Your task to perform on an android device: Clear all items from cart on amazon.com. Add "rayovac triple a" to the cart on amazon.com Image 0: 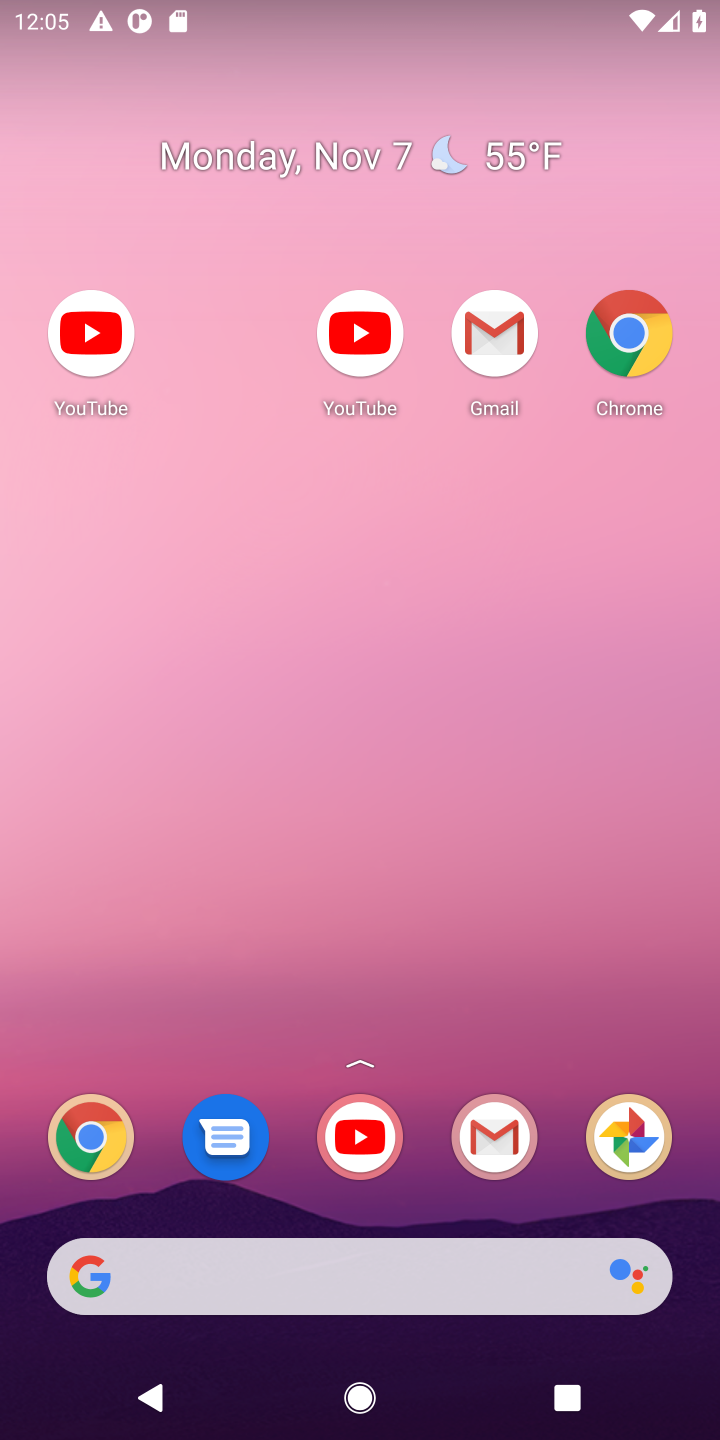
Step 0: drag from (477, 800) to (494, 206)
Your task to perform on an android device: Clear all items from cart on amazon.com. Add "rayovac triple a" to the cart on amazon.com Image 1: 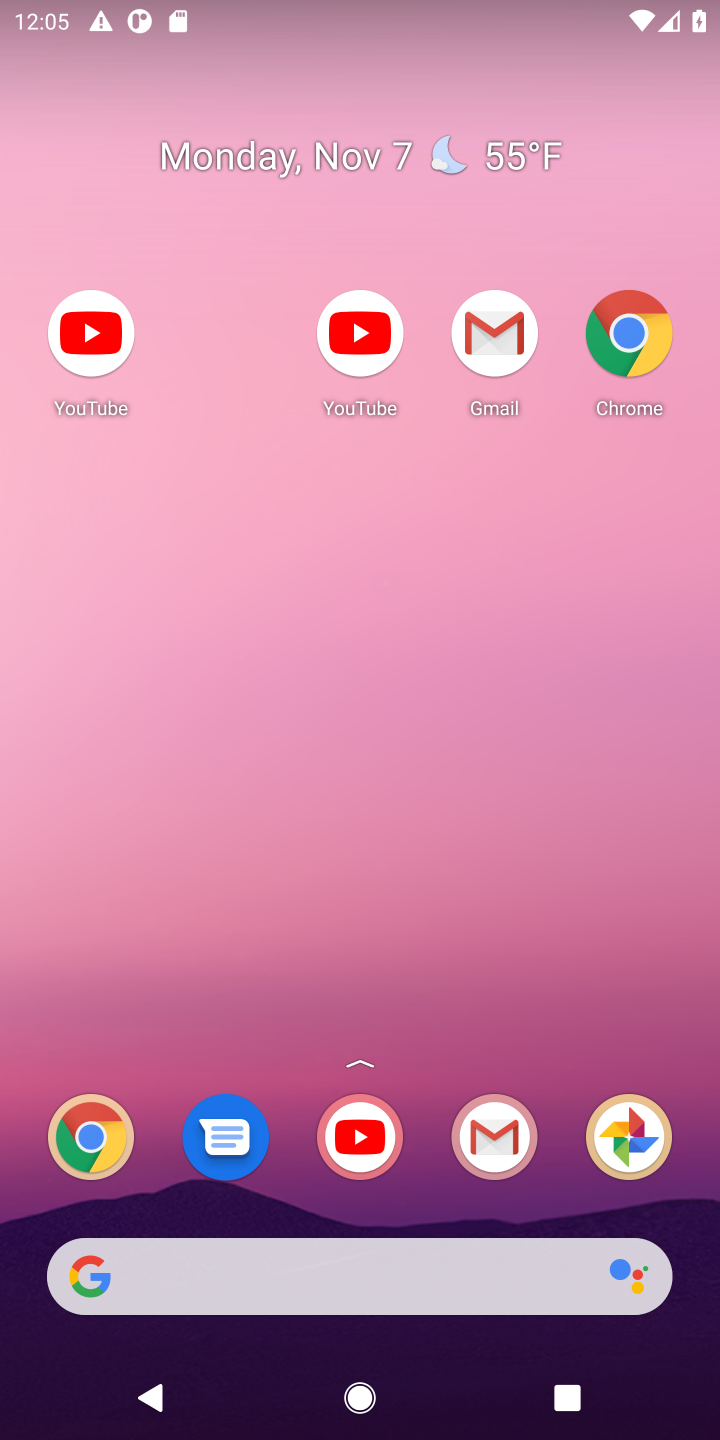
Step 1: drag from (305, 1122) to (219, 174)
Your task to perform on an android device: Clear all items from cart on amazon.com. Add "rayovac triple a" to the cart on amazon.com Image 2: 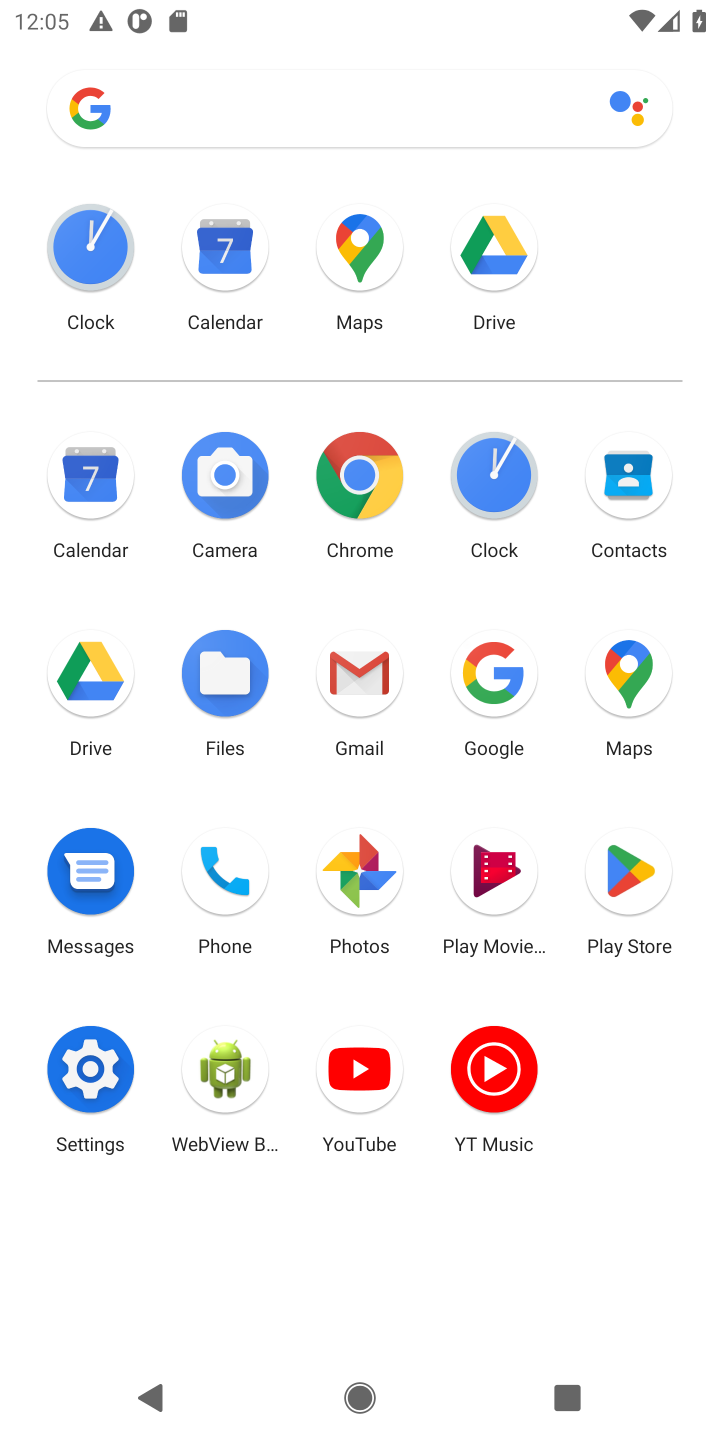
Step 2: click (351, 480)
Your task to perform on an android device: Clear all items from cart on amazon.com. Add "rayovac triple a" to the cart on amazon.com Image 3: 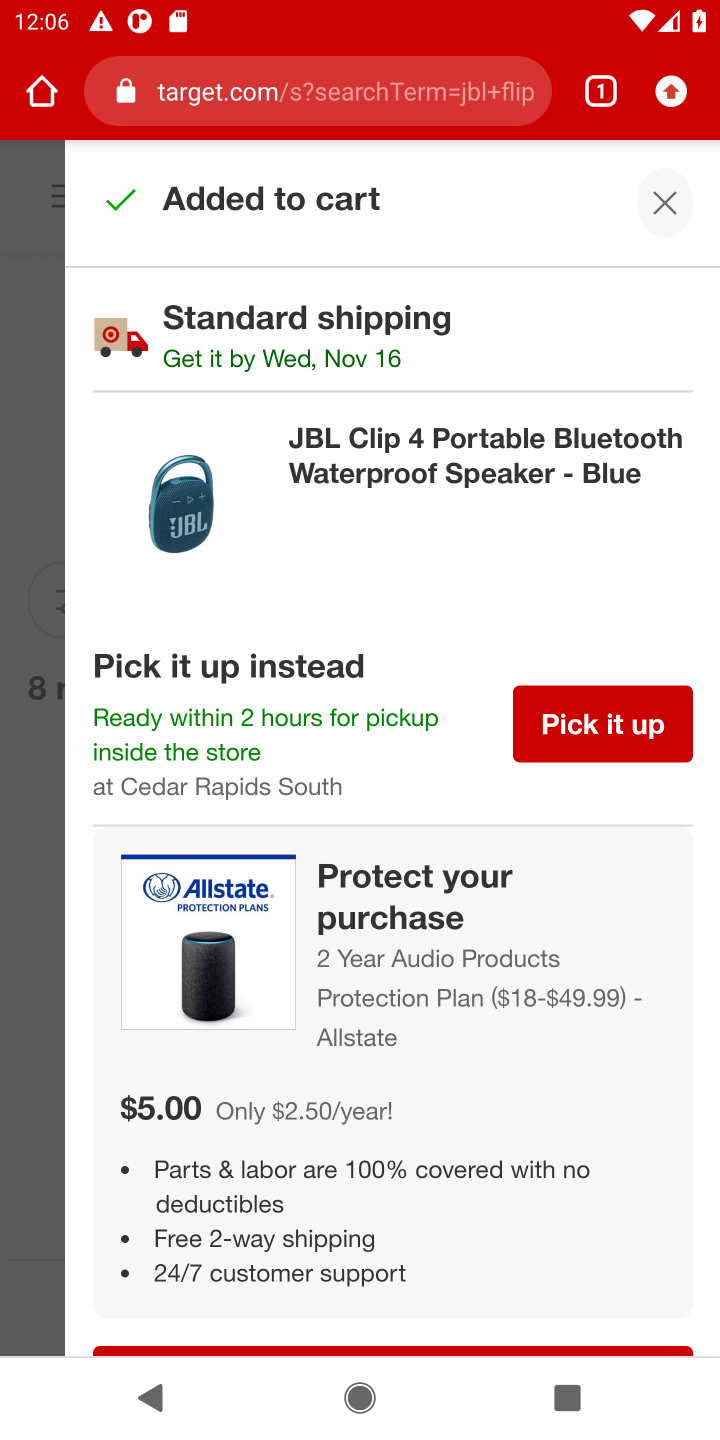
Step 3: drag from (459, 1069) to (426, 388)
Your task to perform on an android device: Clear all items from cart on amazon.com. Add "rayovac triple a" to the cart on amazon.com Image 4: 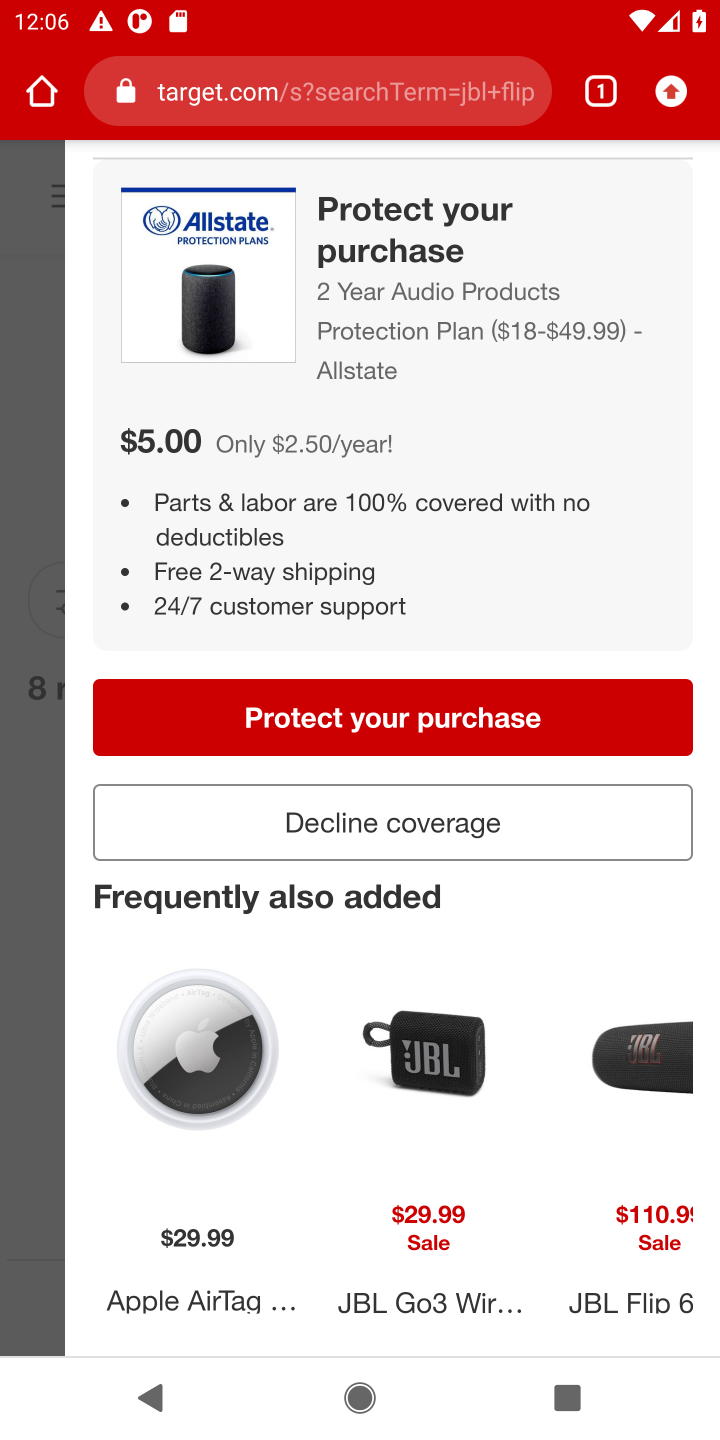
Step 4: drag from (558, 328) to (491, 1164)
Your task to perform on an android device: Clear all items from cart on amazon.com. Add "rayovac triple a" to the cart on amazon.com Image 5: 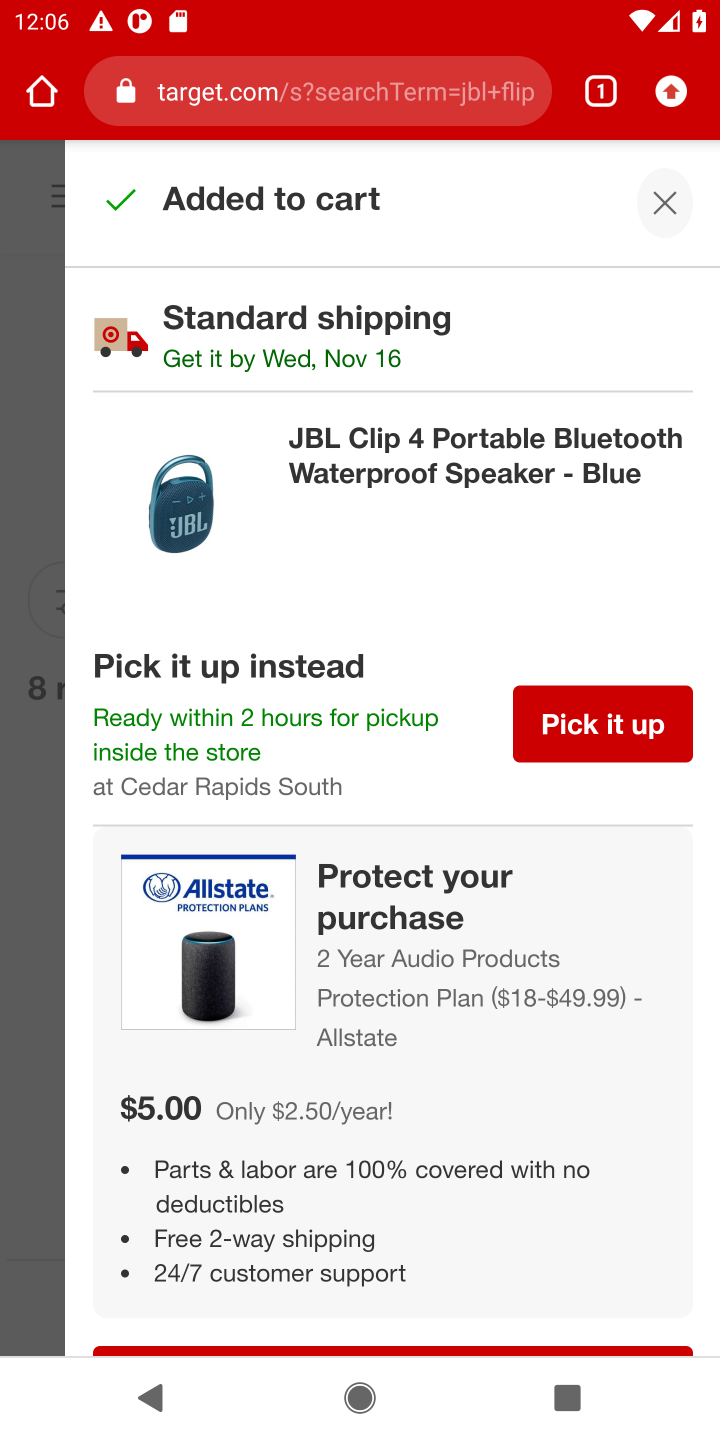
Step 5: click (360, 84)
Your task to perform on an android device: Clear all items from cart on amazon.com. Add "rayovac triple a" to the cart on amazon.com Image 6: 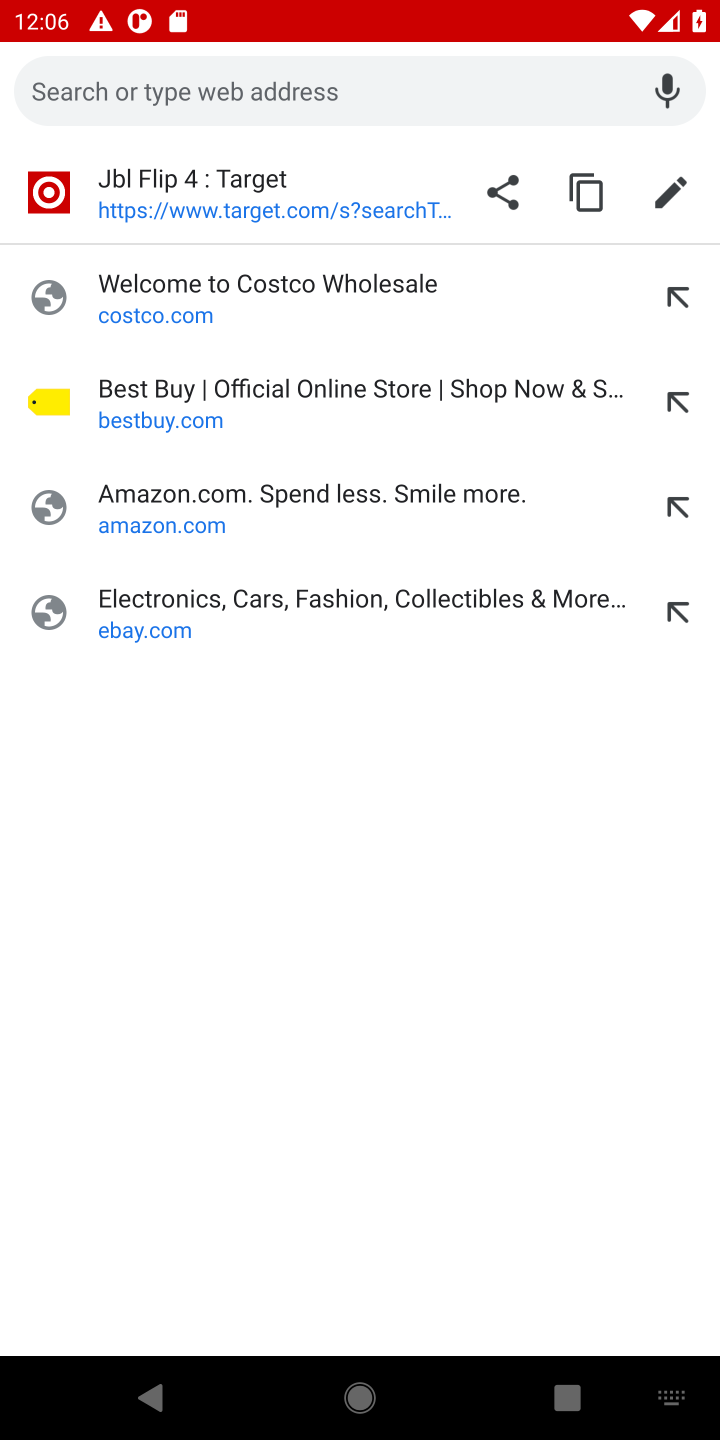
Step 6: type "amazon.com"
Your task to perform on an android device: Clear all items from cart on amazon.com. Add "rayovac triple a" to the cart on amazon.com Image 7: 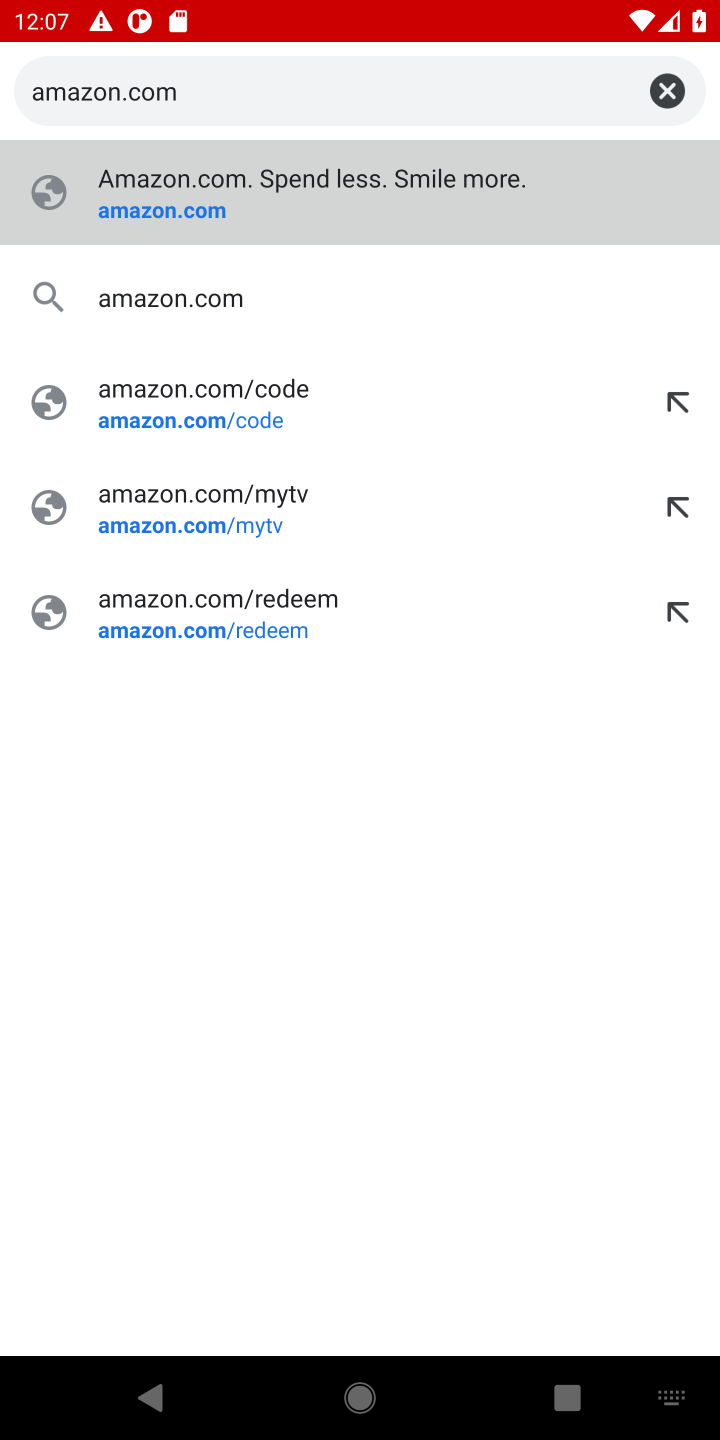
Step 7: press enter
Your task to perform on an android device: Clear all items from cart on amazon.com. Add "rayovac triple a" to the cart on amazon.com Image 8: 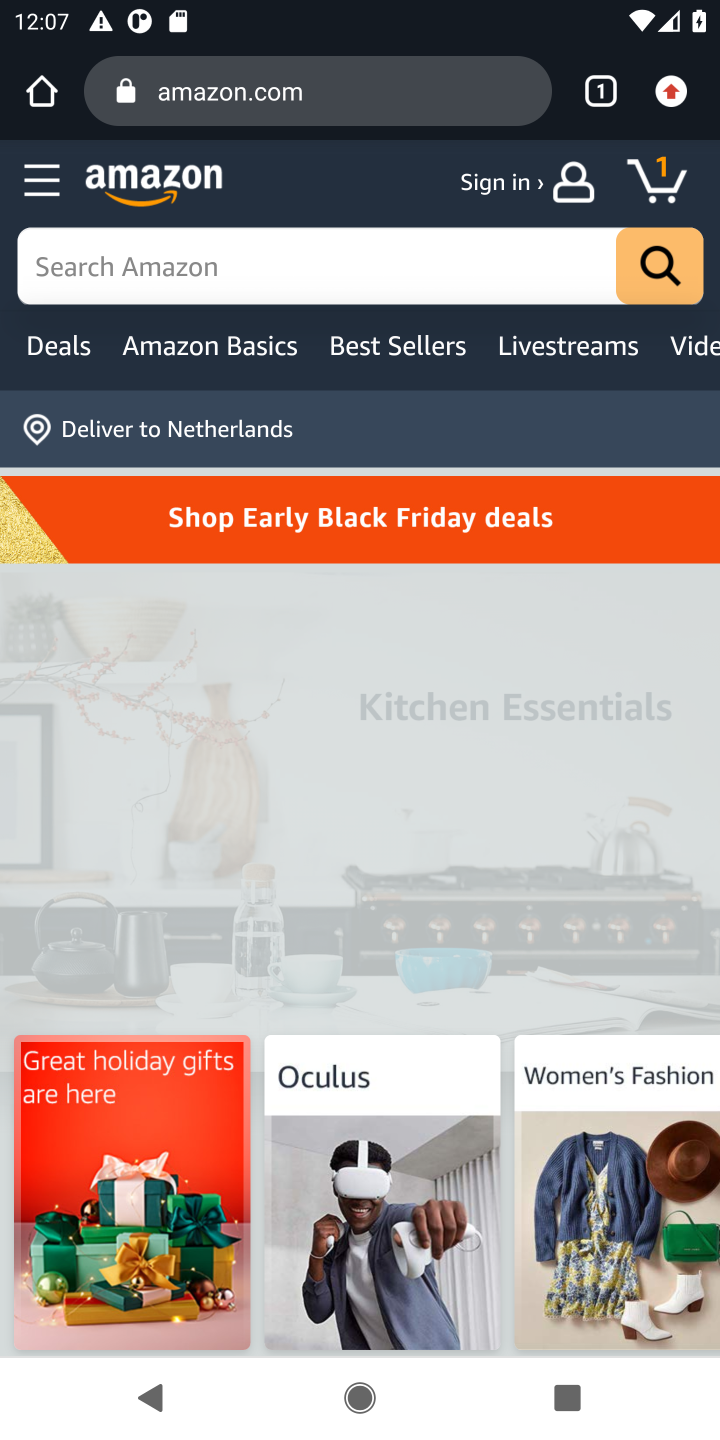
Step 8: click (660, 185)
Your task to perform on an android device: Clear all items from cart on amazon.com. Add "rayovac triple a" to the cart on amazon.com Image 9: 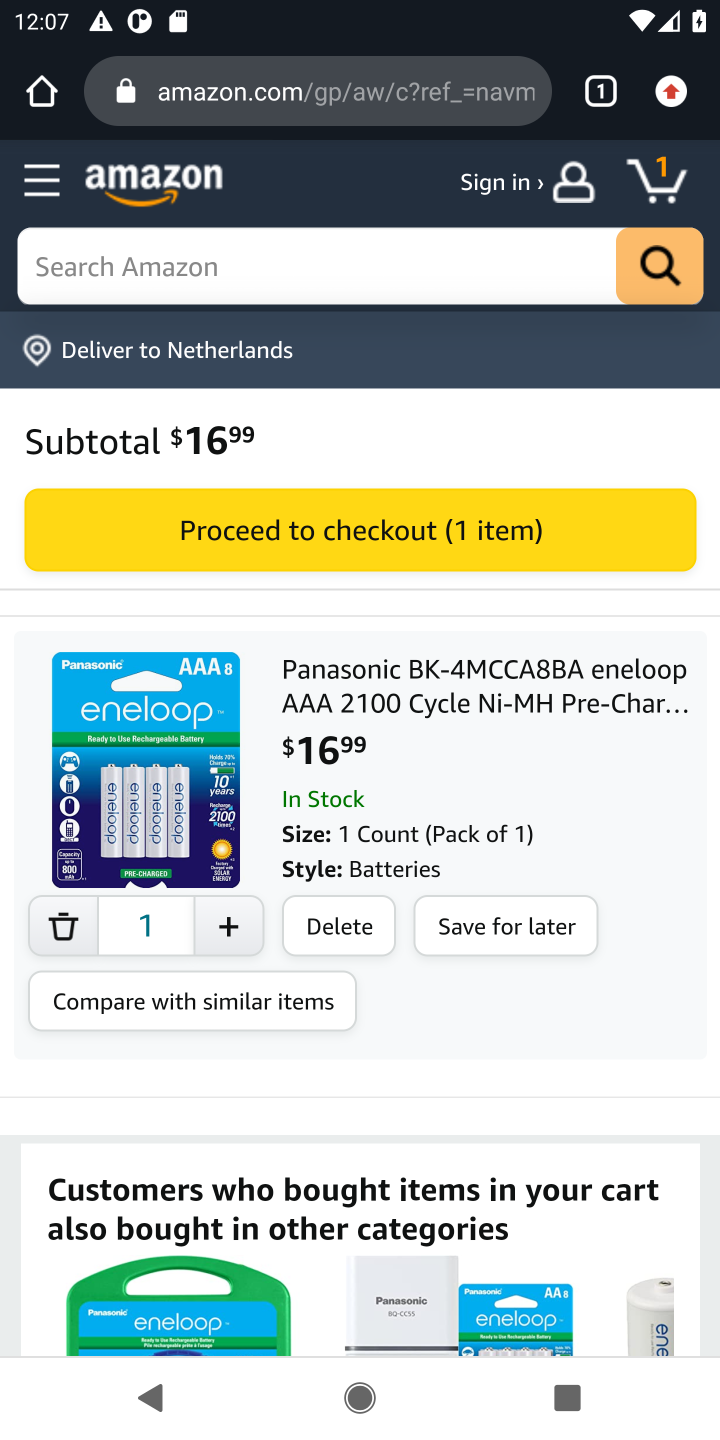
Step 9: click (307, 937)
Your task to perform on an android device: Clear all items from cart on amazon.com. Add "rayovac triple a" to the cart on amazon.com Image 10: 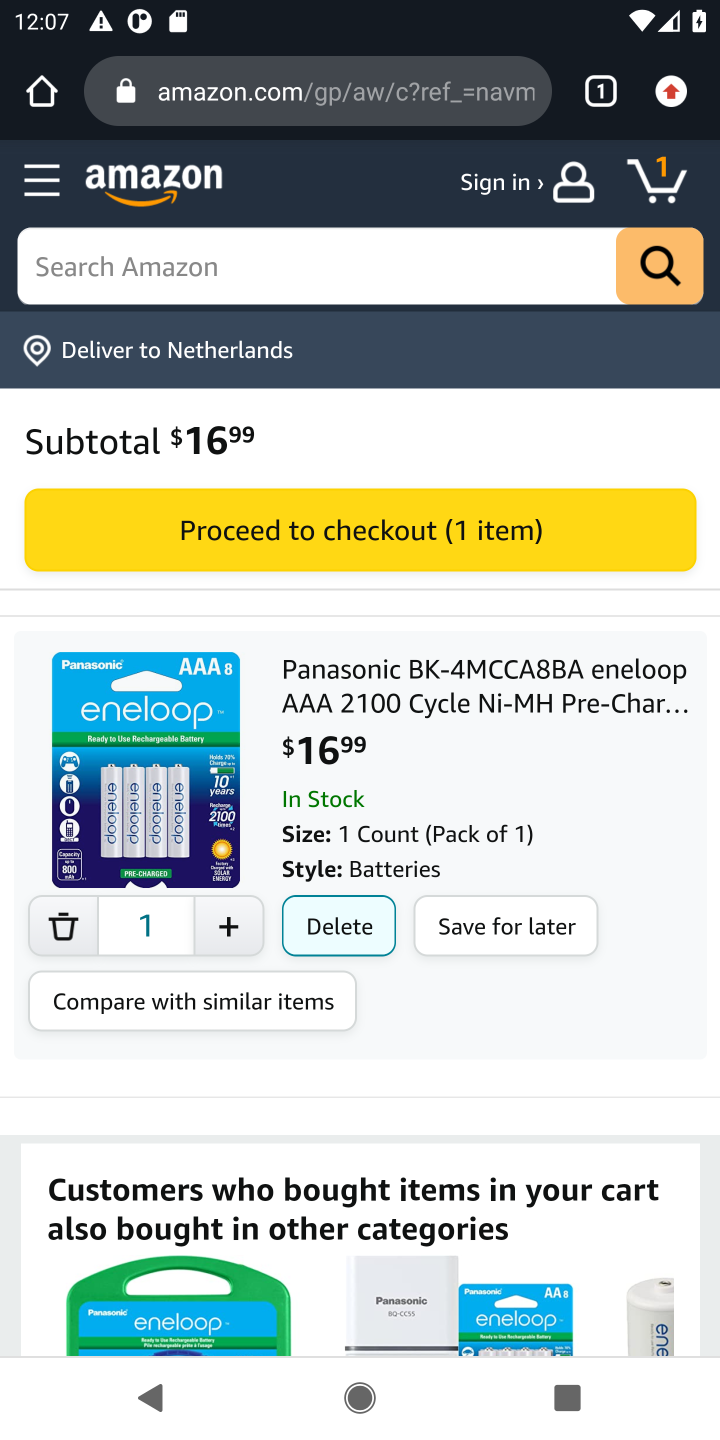
Step 10: click (317, 930)
Your task to perform on an android device: Clear all items from cart on amazon.com. Add "rayovac triple a" to the cart on amazon.com Image 11: 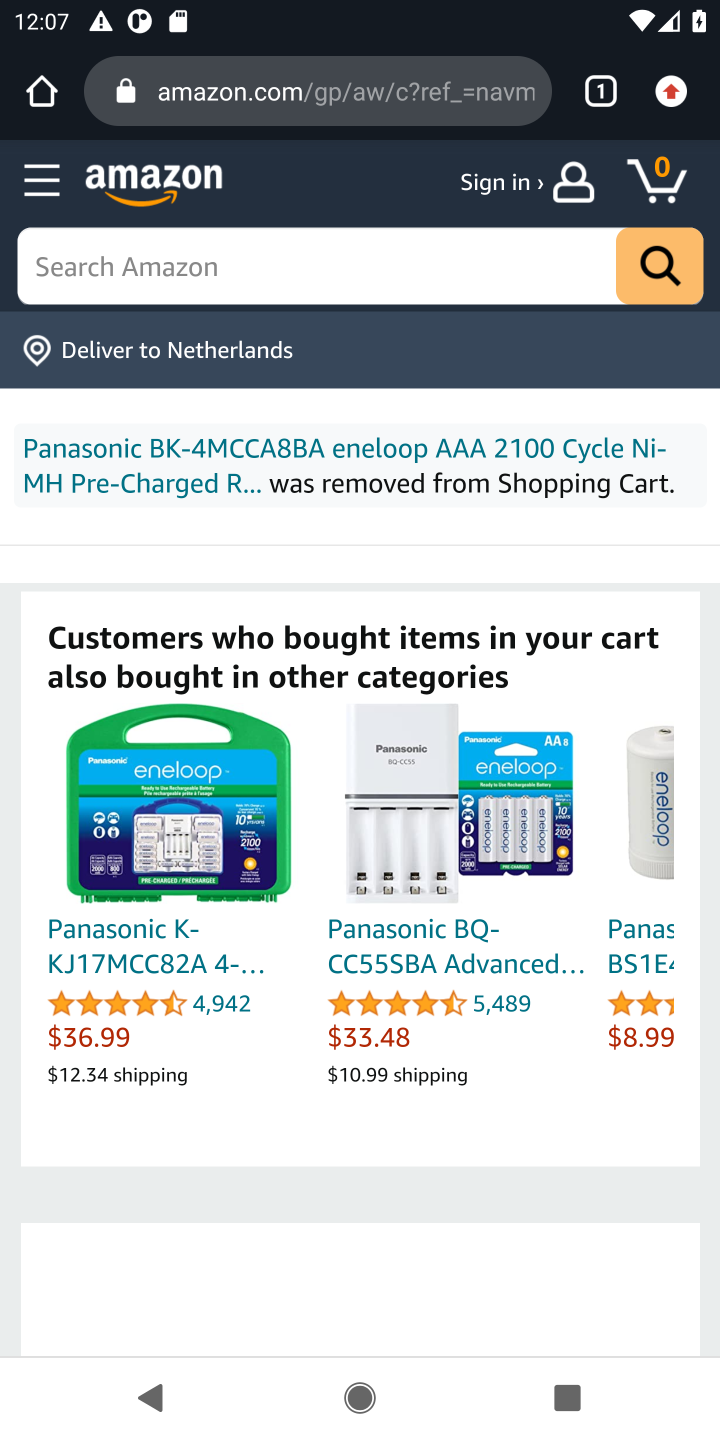
Step 11: click (132, 257)
Your task to perform on an android device: Clear all items from cart on amazon.com. Add "rayovac triple a" to the cart on amazon.com Image 12: 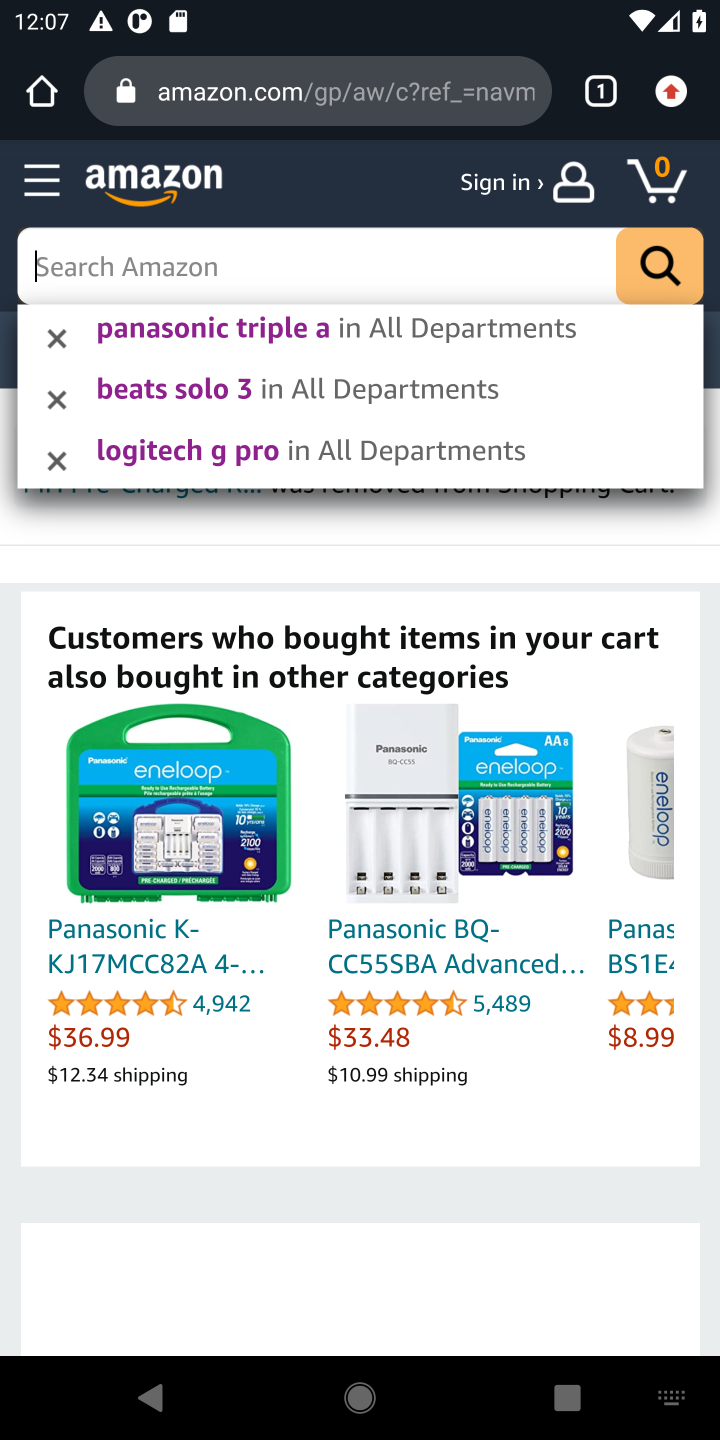
Step 12: type "rayovac triple a"
Your task to perform on an android device: Clear all items from cart on amazon.com. Add "rayovac triple a" to the cart on amazon.com Image 13: 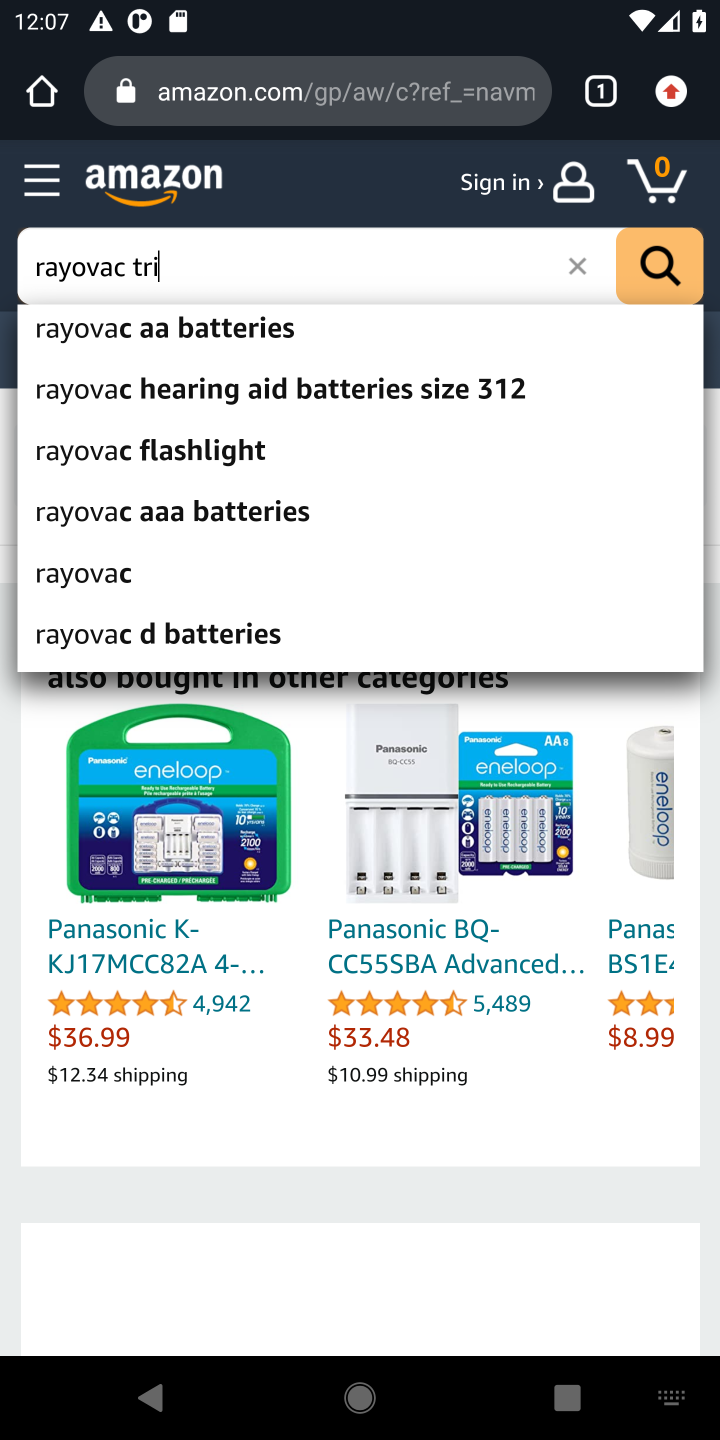
Step 13: press enter
Your task to perform on an android device: Clear all items from cart on amazon.com. Add "rayovac triple a" to the cart on amazon.com Image 14: 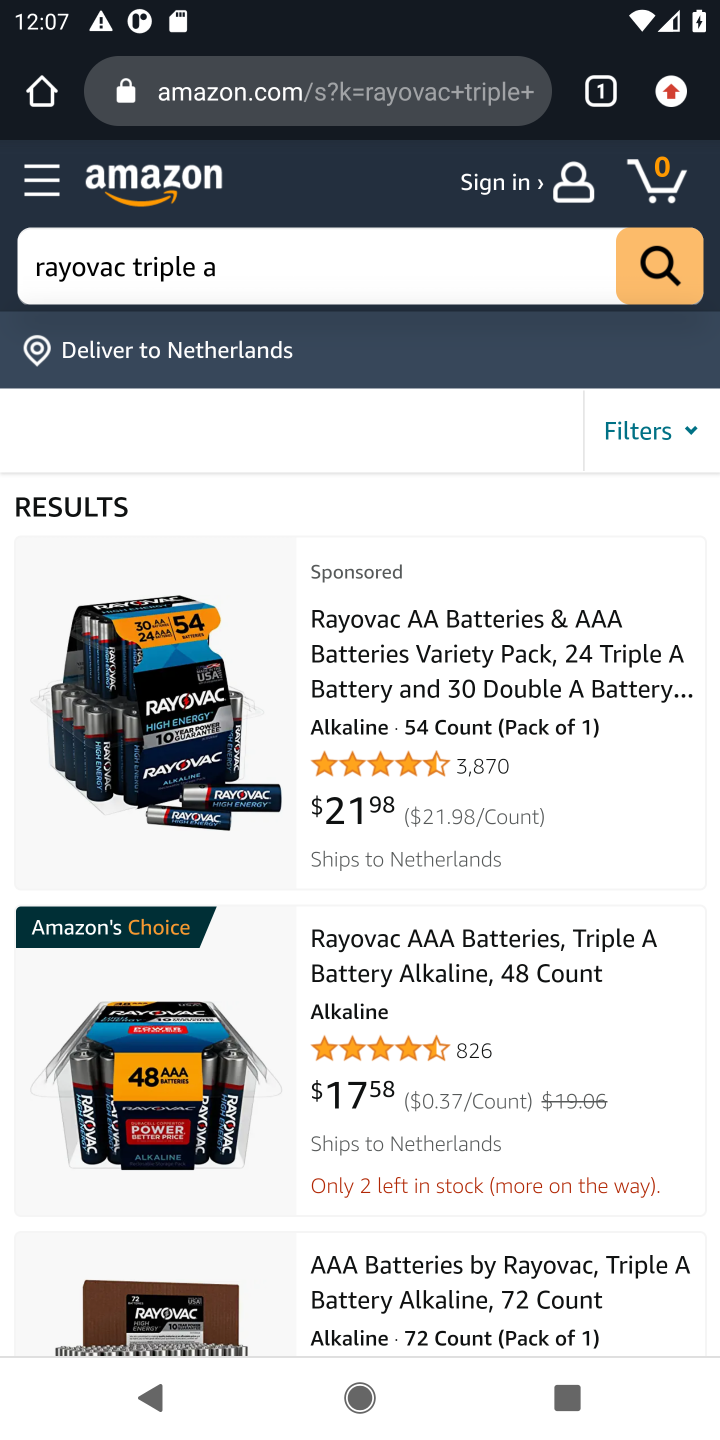
Step 14: click (339, 971)
Your task to perform on an android device: Clear all items from cart on amazon.com. Add "rayovac triple a" to the cart on amazon.com Image 15: 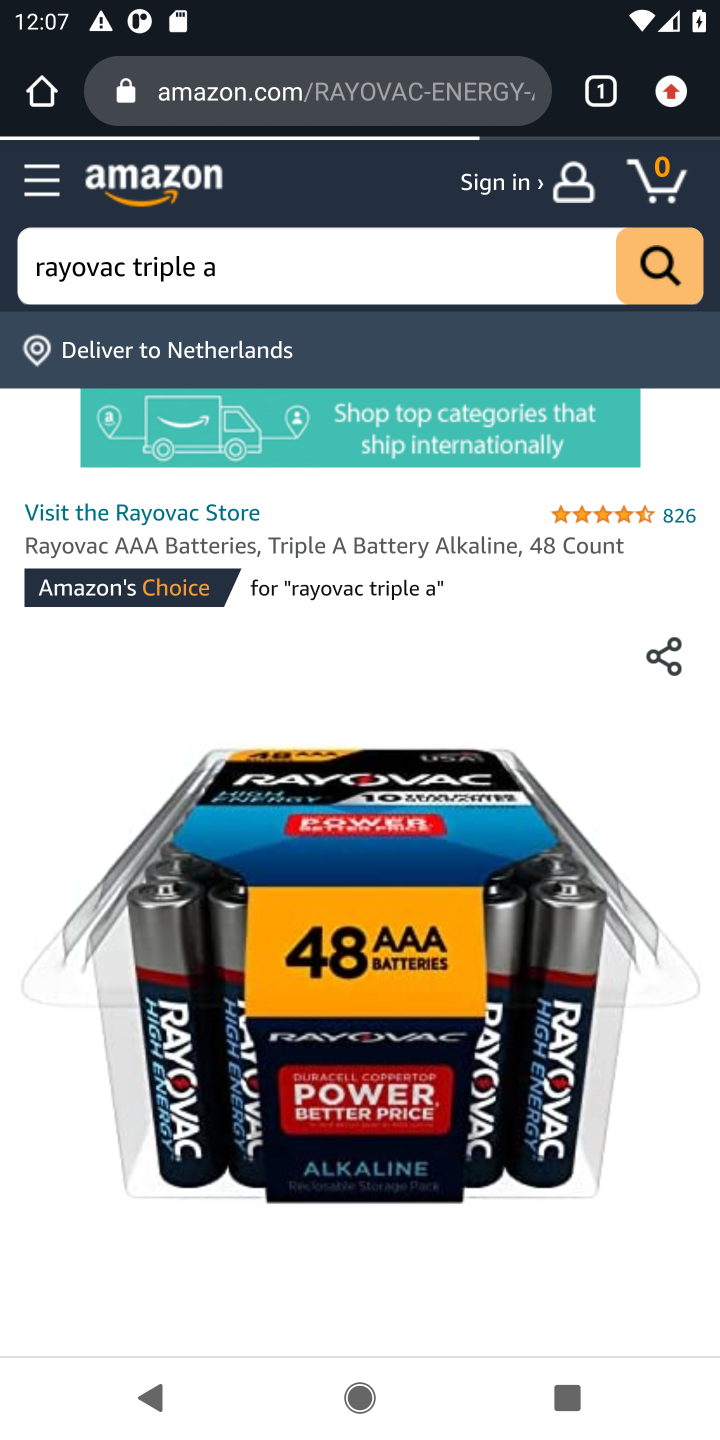
Step 15: drag from (425, 1020) to (479, 129)
Your task to perform on an android device: Clear all items from cart on amazon.com. Add "rayovac triple a" to the cart on amazon.com Image 16: 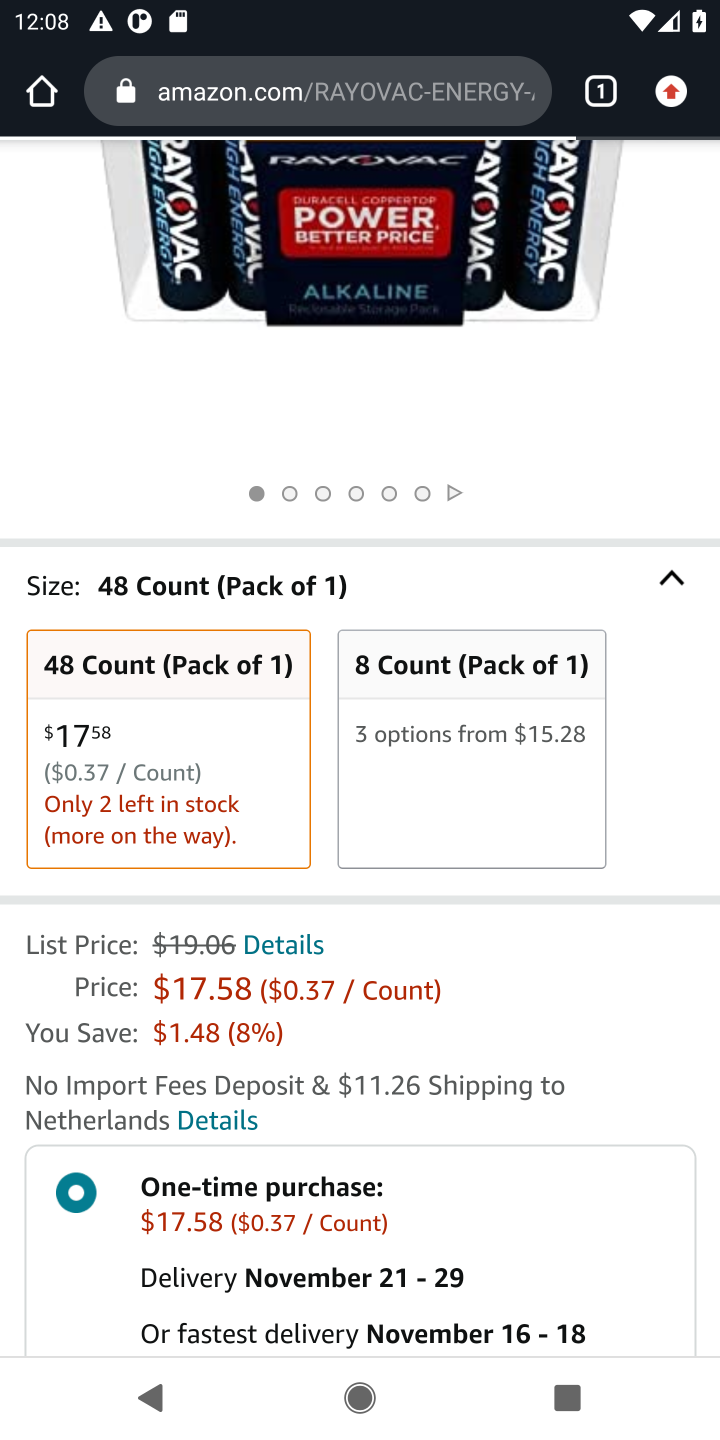
Step 16: drag from (439, 1067) to (457, 453)
Your task to perform on an android device: Clear all items from cart on amazon.com. Add "rayovac triple a" to the cart on amazon.com Image 17: 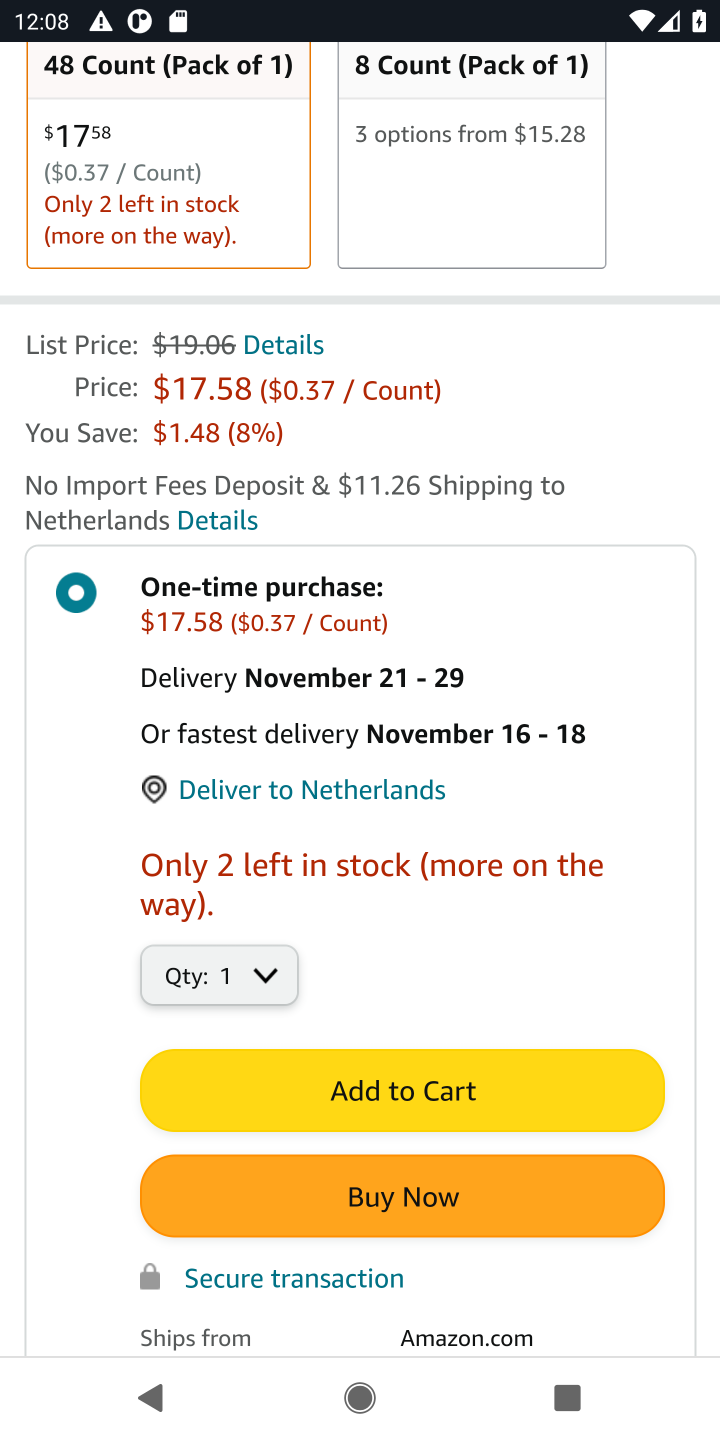
Step 17: click (410, 1093)
Your task to perform on an android device: Clear all items from cart on amazon.com. Add "rayovac triple a" to the cart on amazon.com Image 18: 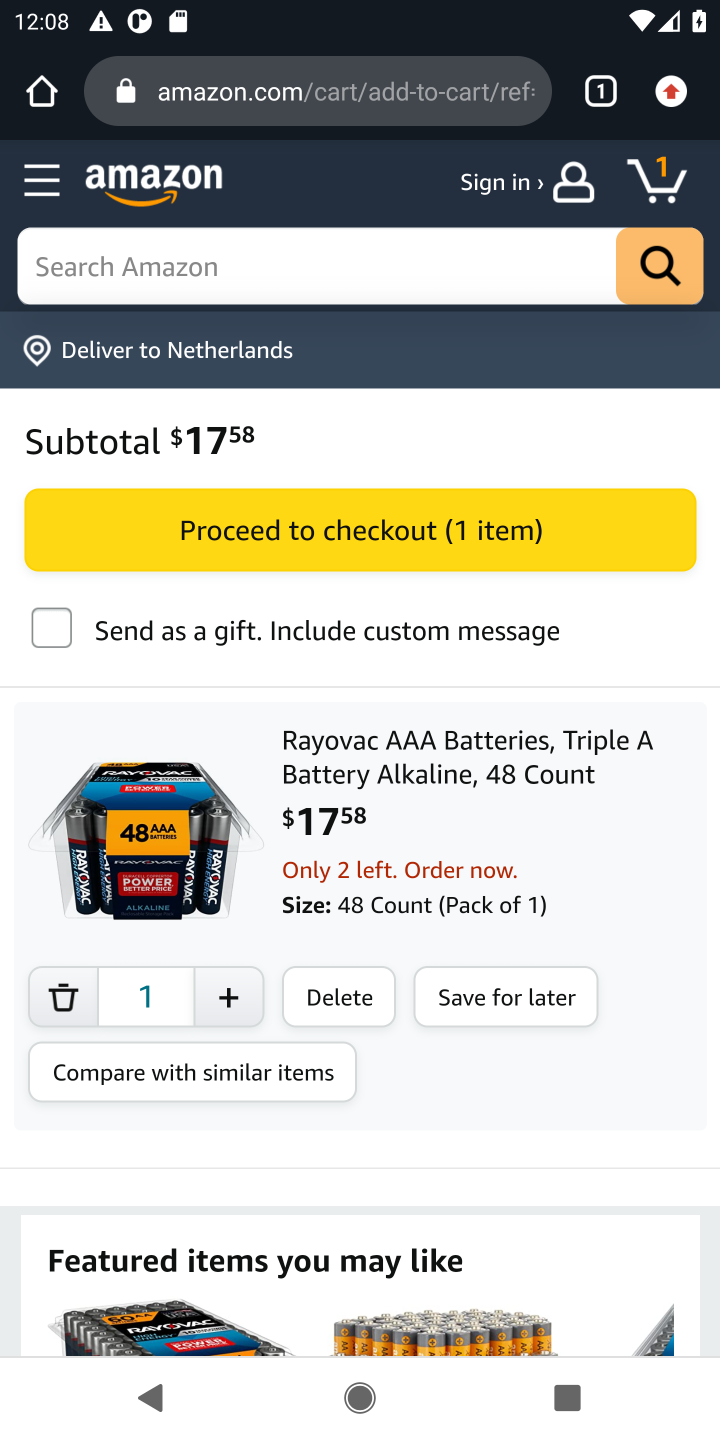
Step 18: task complete